Your task to perform on an android device: toggle location history Image 0: 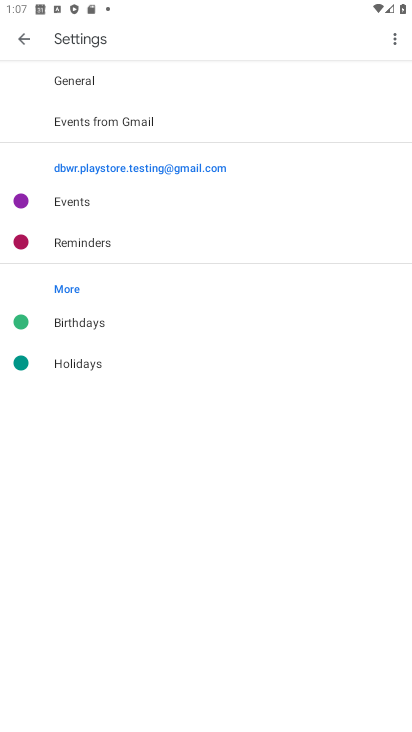
Step 0: press home button
Your task to perform on an android device: toggle location history Image 1: 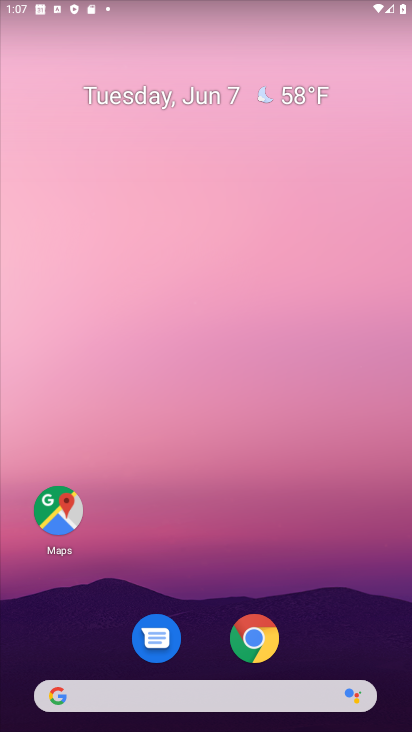
Step 1: drag from (195, 652) to (258, 236)
Your task to perform on an android device: toggle location history Image 2: 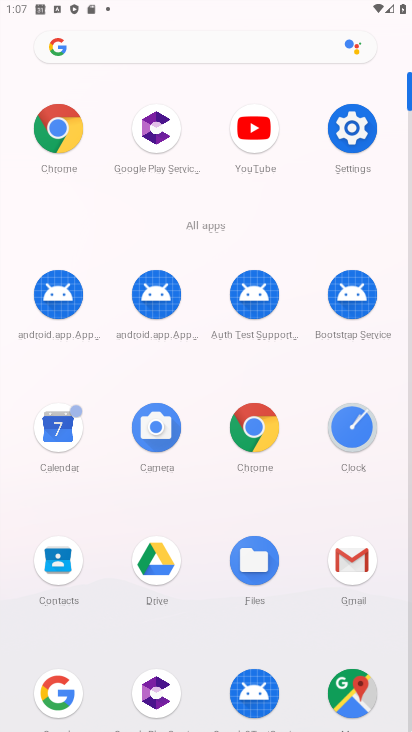
Step 2: click (341, 126)
Your task to perform on an android device: toggle location history Image 3: 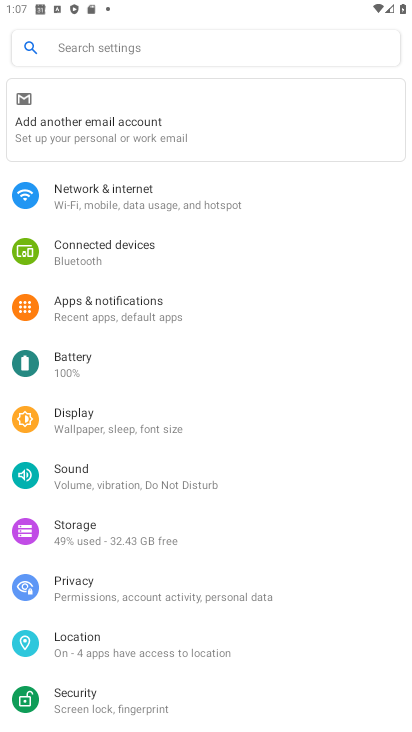
Step 3: click (77, 653)
Your task to perform on an android device: toggle location history Image 4: 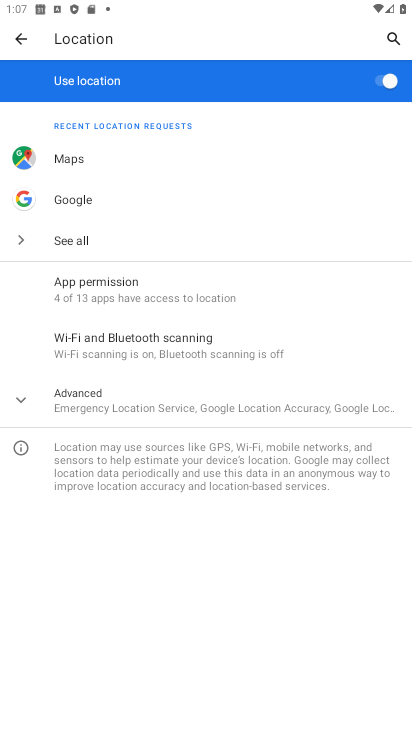
Step 4: click (132, 403)
Your task to perform on an android device: toggle location history Image 5: 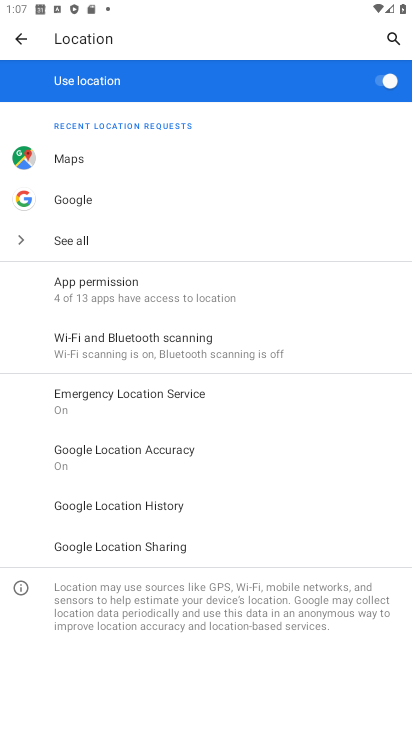
Step 5: click (179, 511)
Your task to perform on an android device: toggle location history Image 6: 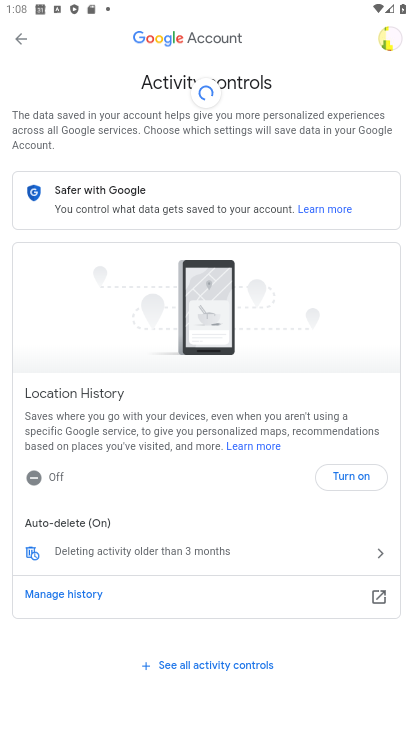
Step 6: drag from (194, 507) to (303, 169)
Your task to perform on an android device: toggle location history Image 7: 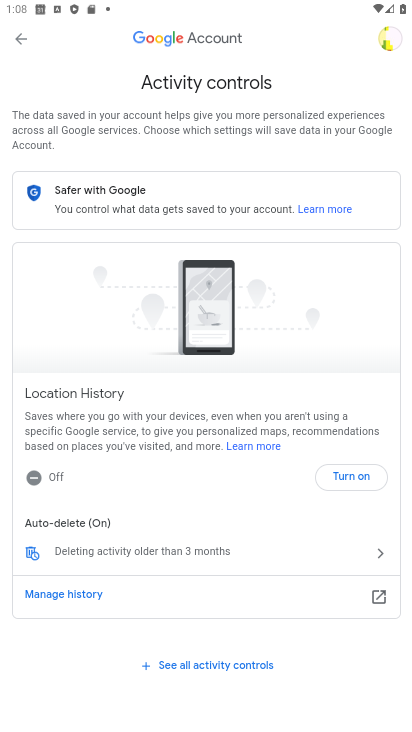
Step 7: click (371, 479)
Your task to perform on an android device: toggle location history Image 8: 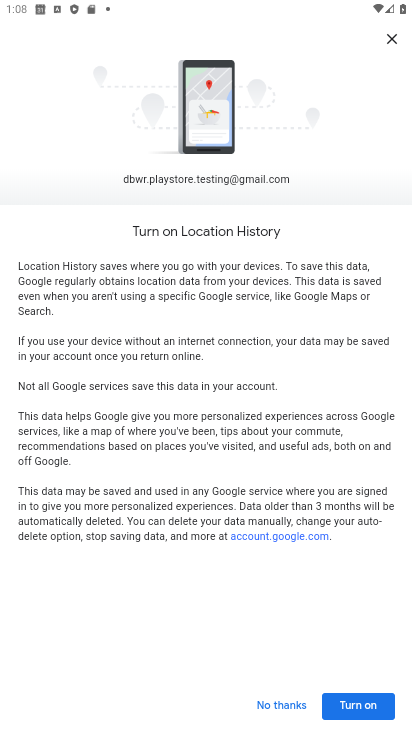
Step 8: click (294, 701)
Your task to perform on an android device: toggle location history Image 9: 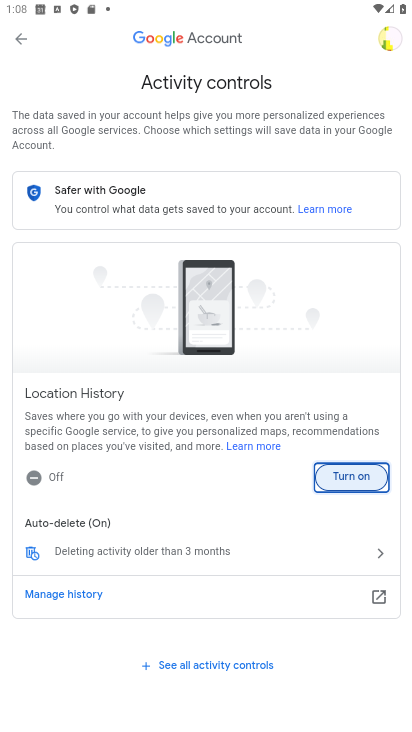
Step 9: task complete